Your task to perform on an android device: add a contact Image 0: 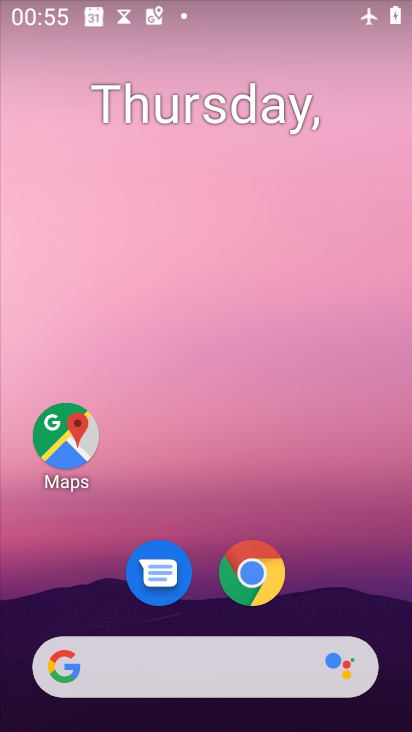
Step 0: drag from (325, 565) to (352, 234)
Your task to perform on an android device: add a contact Image 1: 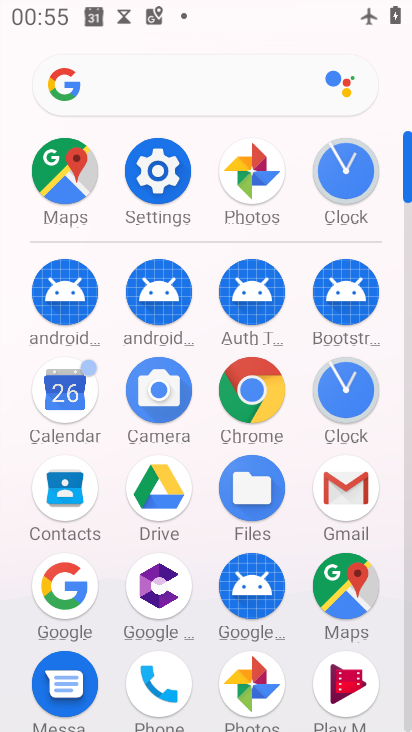
Step 1: click (165, 664)
Your task to perform on an android device: add a contact Image 2: 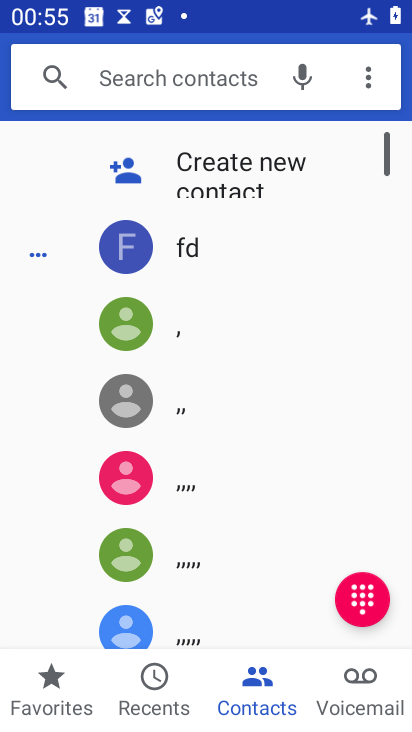
Step 2: click (199, 180)
Your task to perform on an android device: add a contact Image 3: 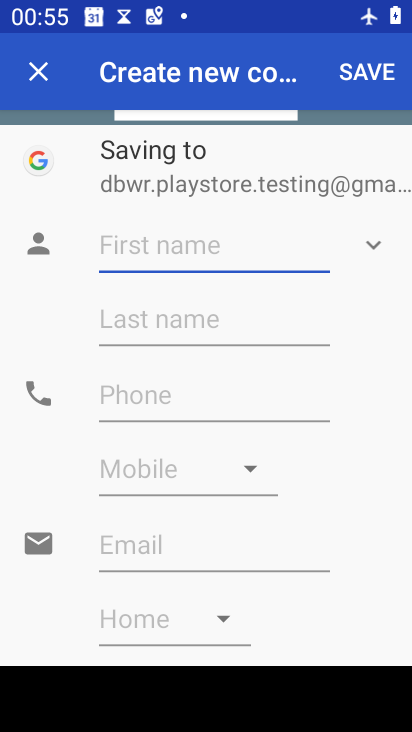
Step 3: click (215, 234)
Your task to perform on an android device: add a contact Image 4: 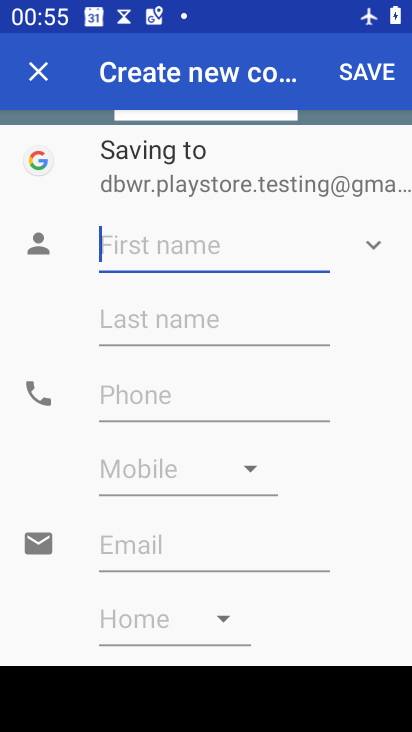
Step 4: type "nbnbnbnbn"
Your task to perform on an android device: add a contact Image 5: 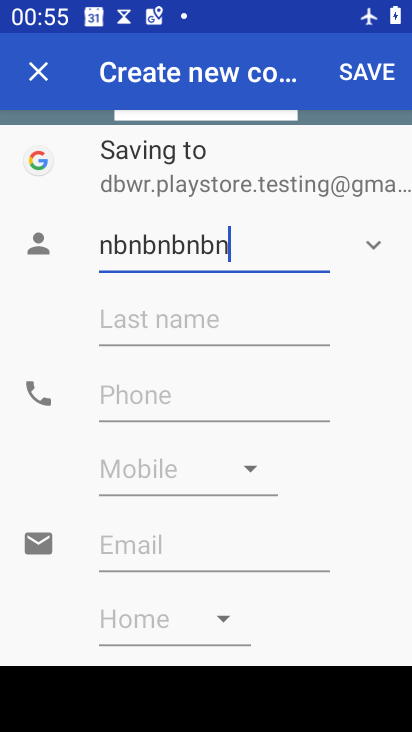
Step 5: click (221, 368)
Your task to perform on an android device: add a contact Image 6: 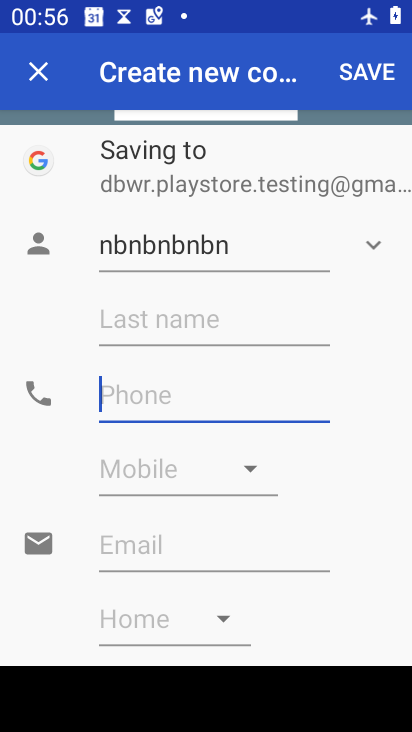
Step 6: click (287, 41)
Your task to perform on an android device: add a contact Image 7: 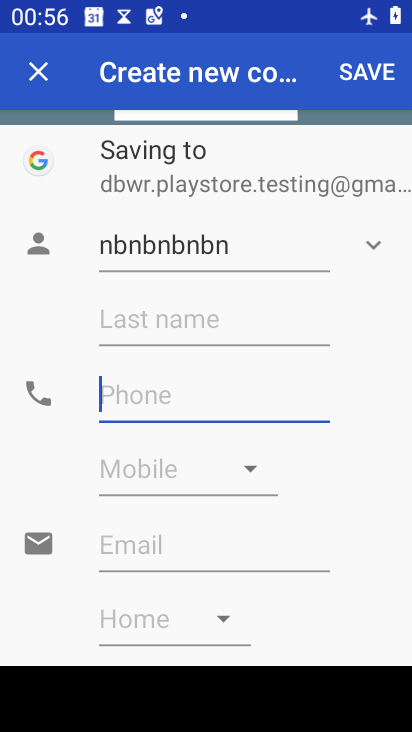
Step 7: click (292, 42)
Your task to perform on an android device: add a contact Image 8: 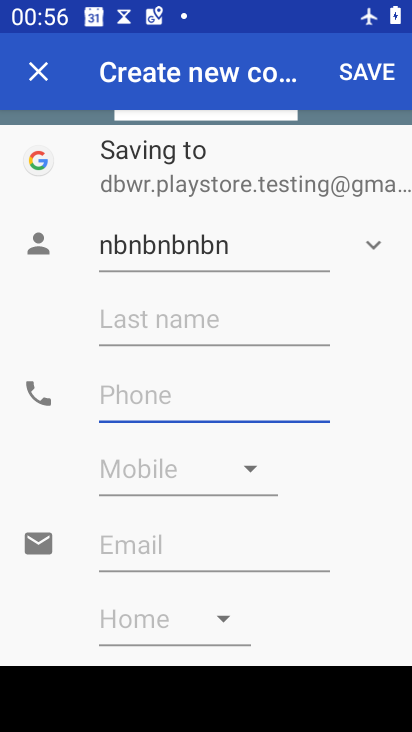
Step 8: click (311, 46)
Your task to perform on an android device: add a contact Image 9: 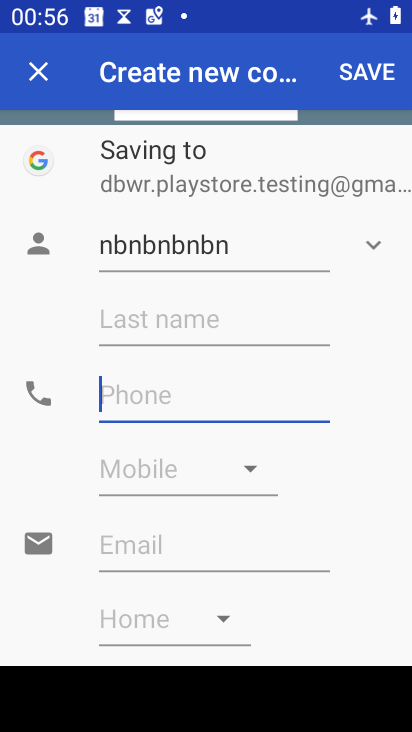
Step 9: click (210, 398)
Your task to perform on an android device: add a contact Image 10: 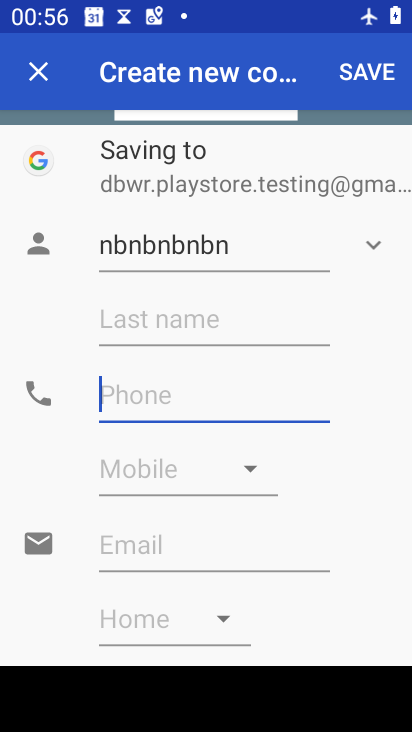
Step 10: type "5677889"
Your task to perform on an android device: add a contact Image 11: 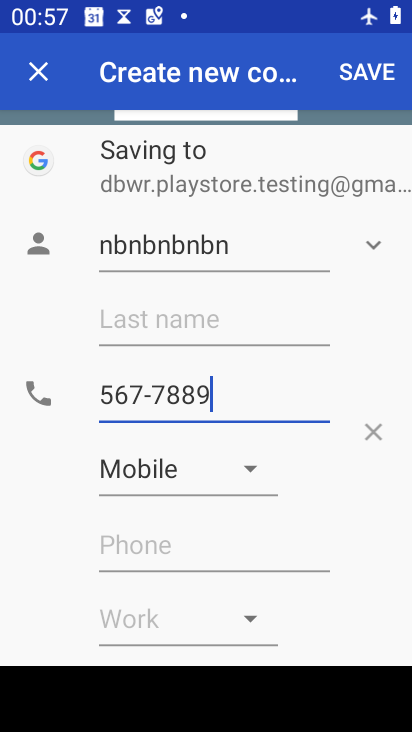
Step 11: click (341, 63)
Your task to perform on an android device: add a contact Image 12: 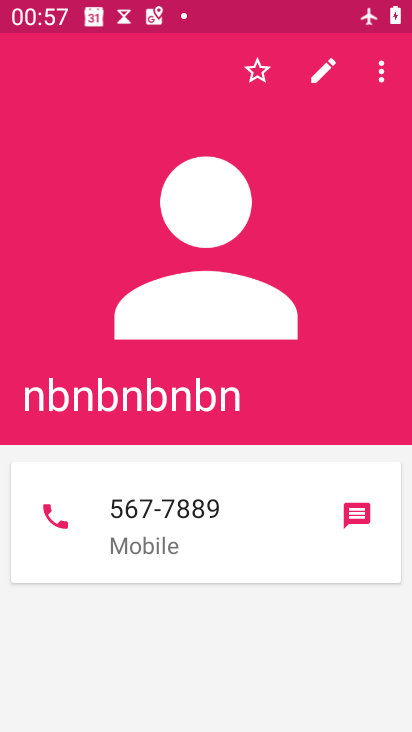
Step 12: task complete